Your task to perform on an android device: Search for Mexican restaurants on Maps Image 0: 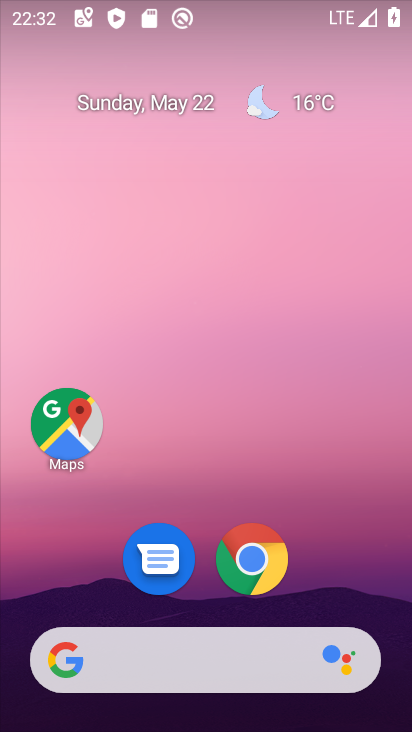
Step 0: drag from (277, 684) to (221, 254)
Your task to perform on an android device: Search for Mexican restaurants on Maps Image 1: 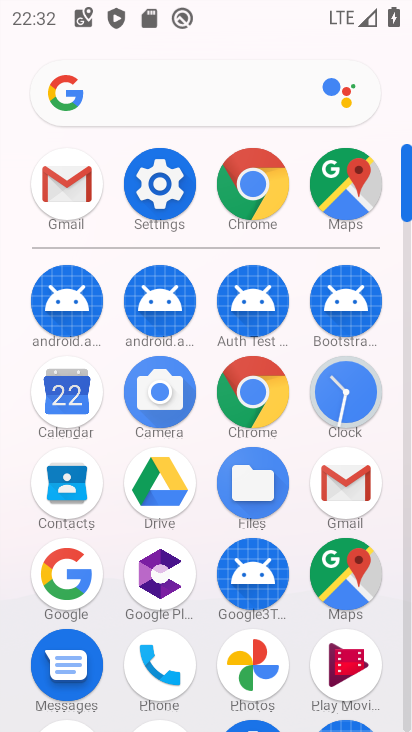
Step 1: click (360, 210)
Your task to perform on an android device: Search for Mexican restaurants on Maps Image 2: 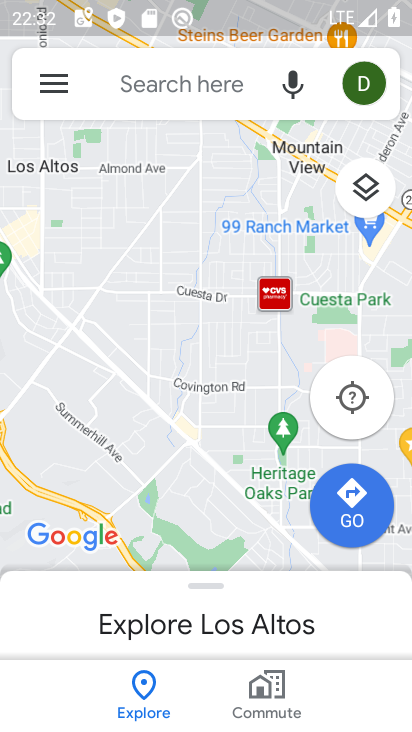
Step 2: click (162, 85)
Your task to perform on an android device: Search for Mexican restaurants on Maps Image 3: 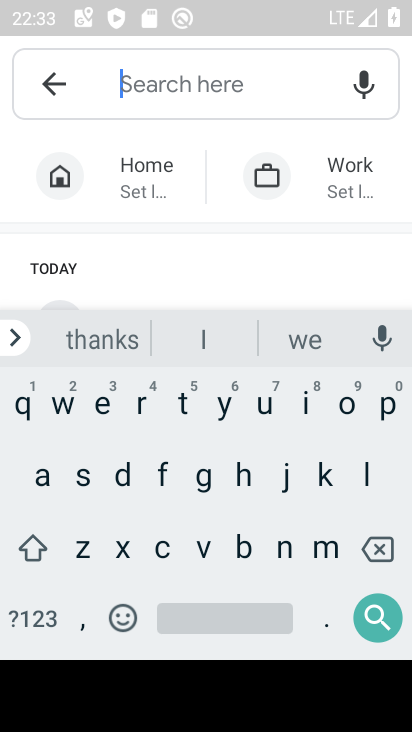
Step 3: click (316, 542)
Your task to perform on an android device: Search for Mexican restaurants on Maps Image 4: 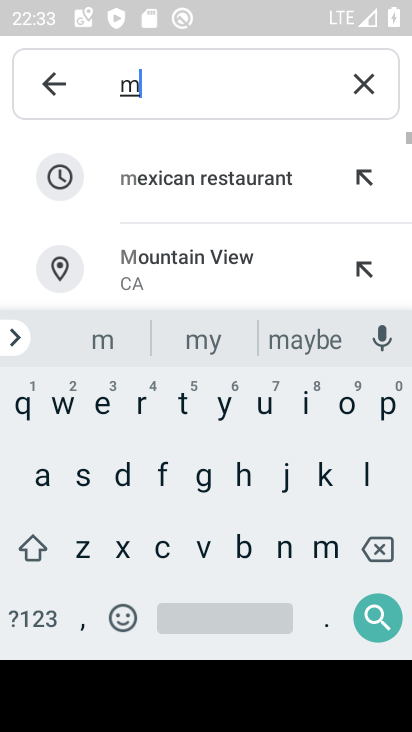
Step 4: click (135, 204)
Your task to perform on an android device: Search for Mexican restaurants on Maps Image 5: 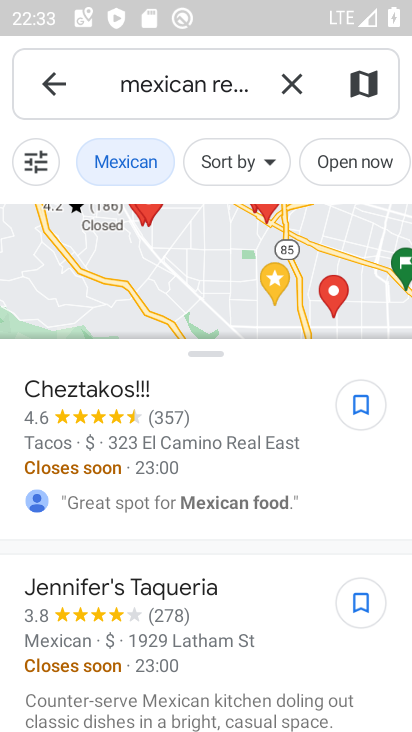
Step 5: click (145, 279)
Your task to perform on an android device: Search for Mexican restaurants on Maps Image 6: 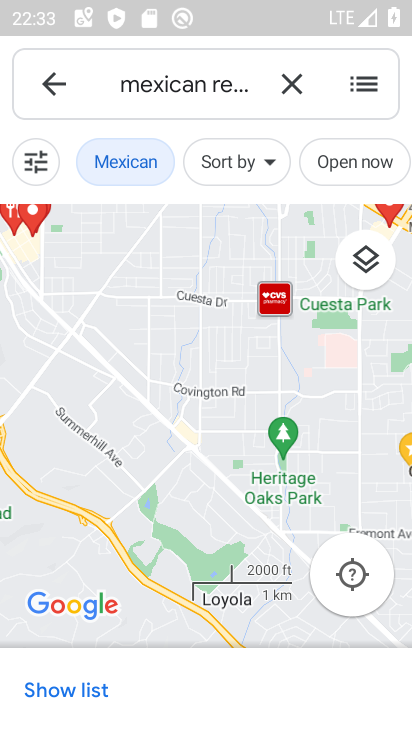
Step 6: task complete